Your task to perform on an android device: Add "lg ultragear" to the cart on target.com Image 0: 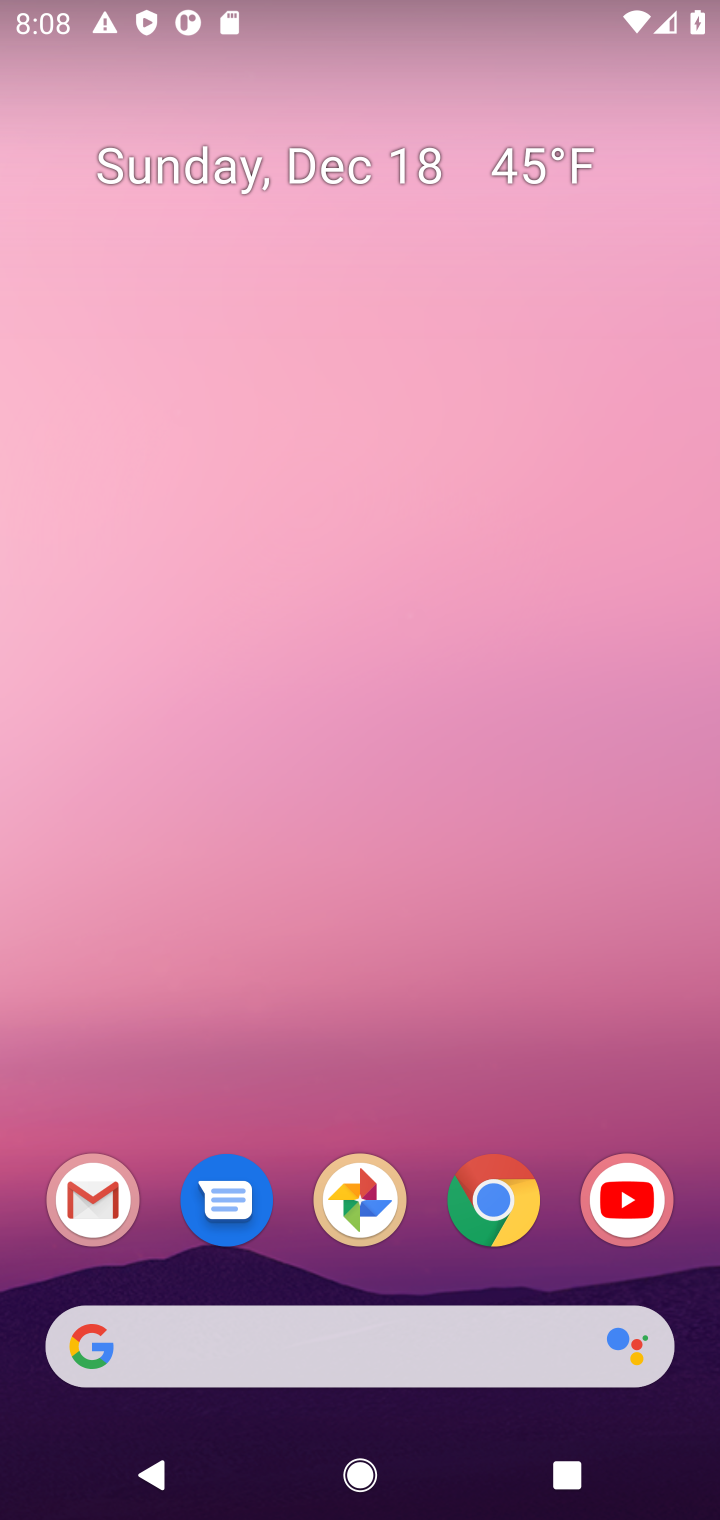
Step 0: click (495, 1190)
Your task to perform on an android device: Add "lg ultragear" to the cart on target.com Image 1: 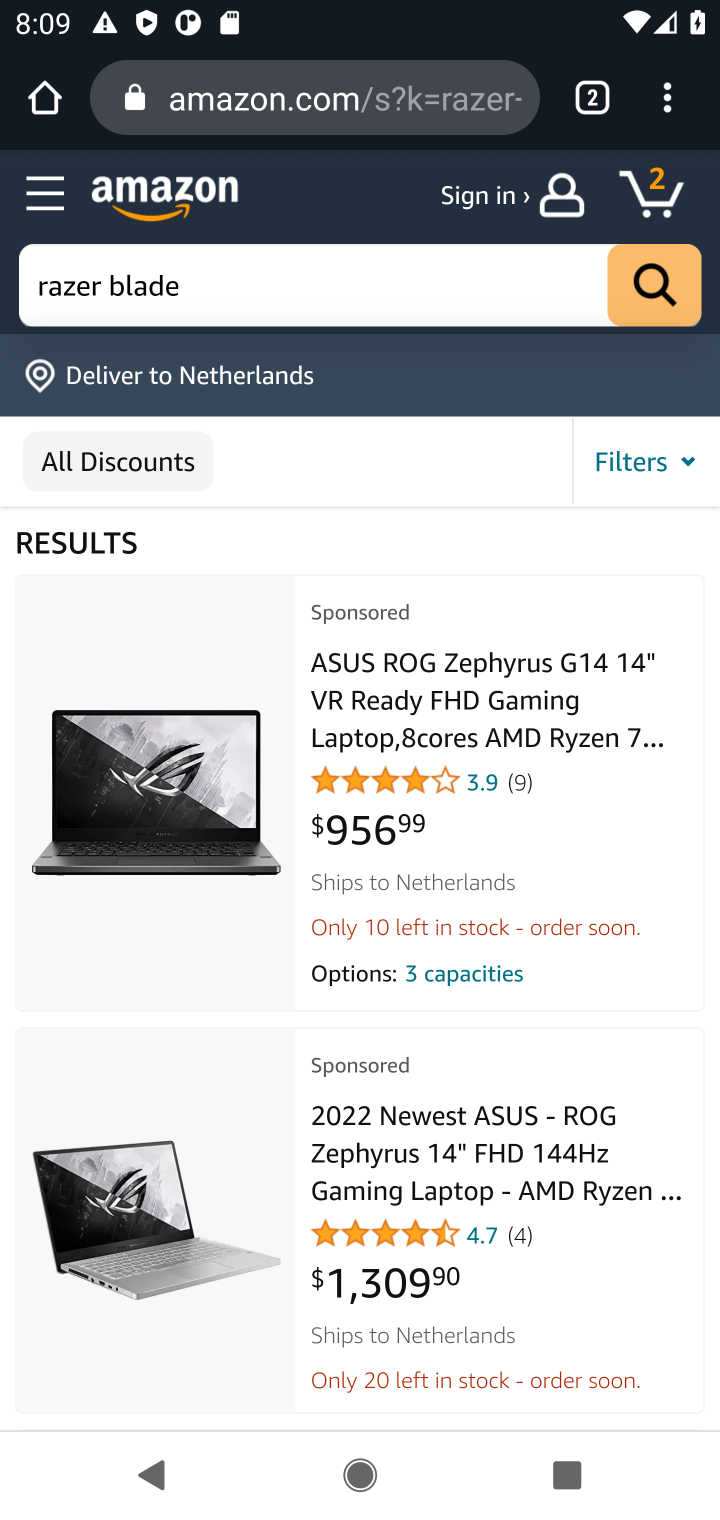
Step 1: click (227, 107)
Your task to perform on an android device: Add "lg ultragear" to the cart on target.com Image 2: 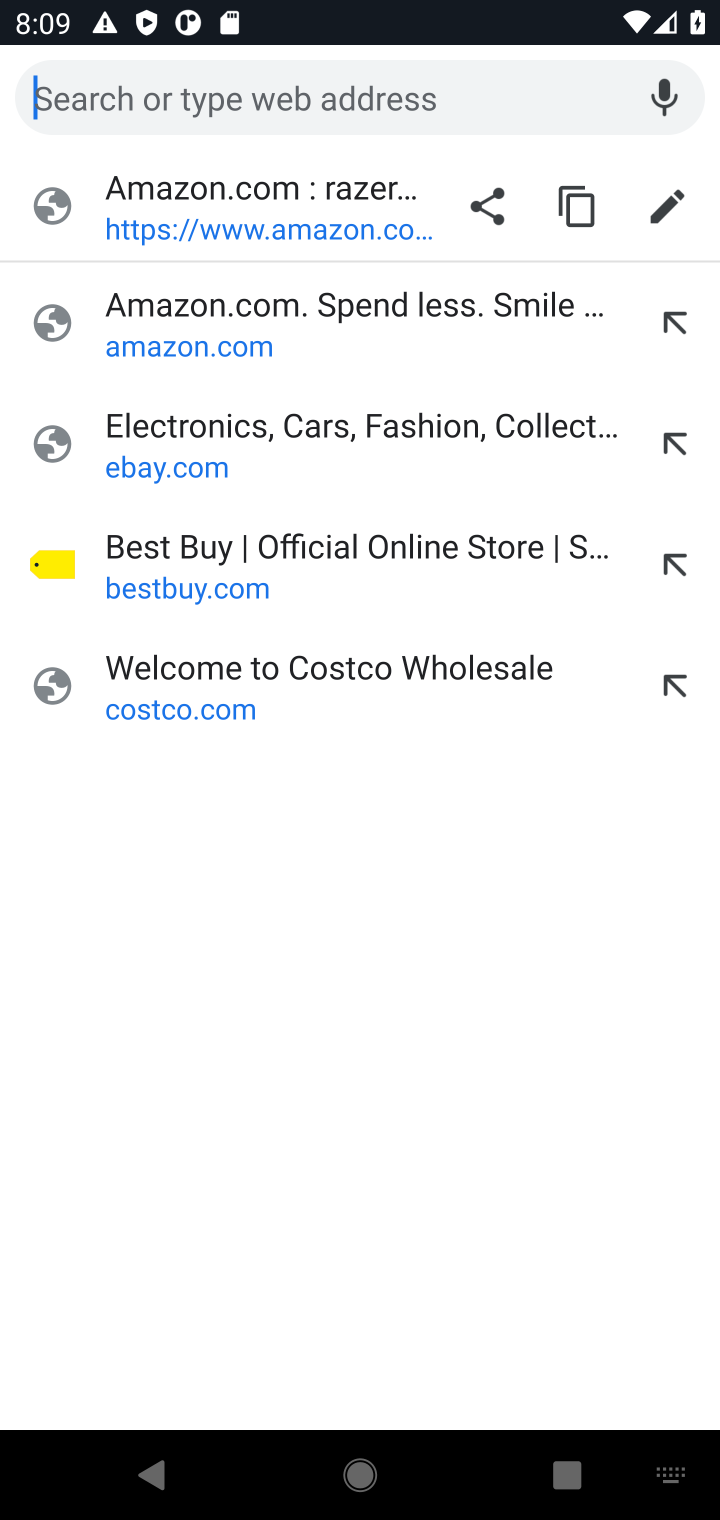
Step 2: type "target.com"
Your task to perform on an android device: Add "lg ultragear" to the cart on target.com Image 3: 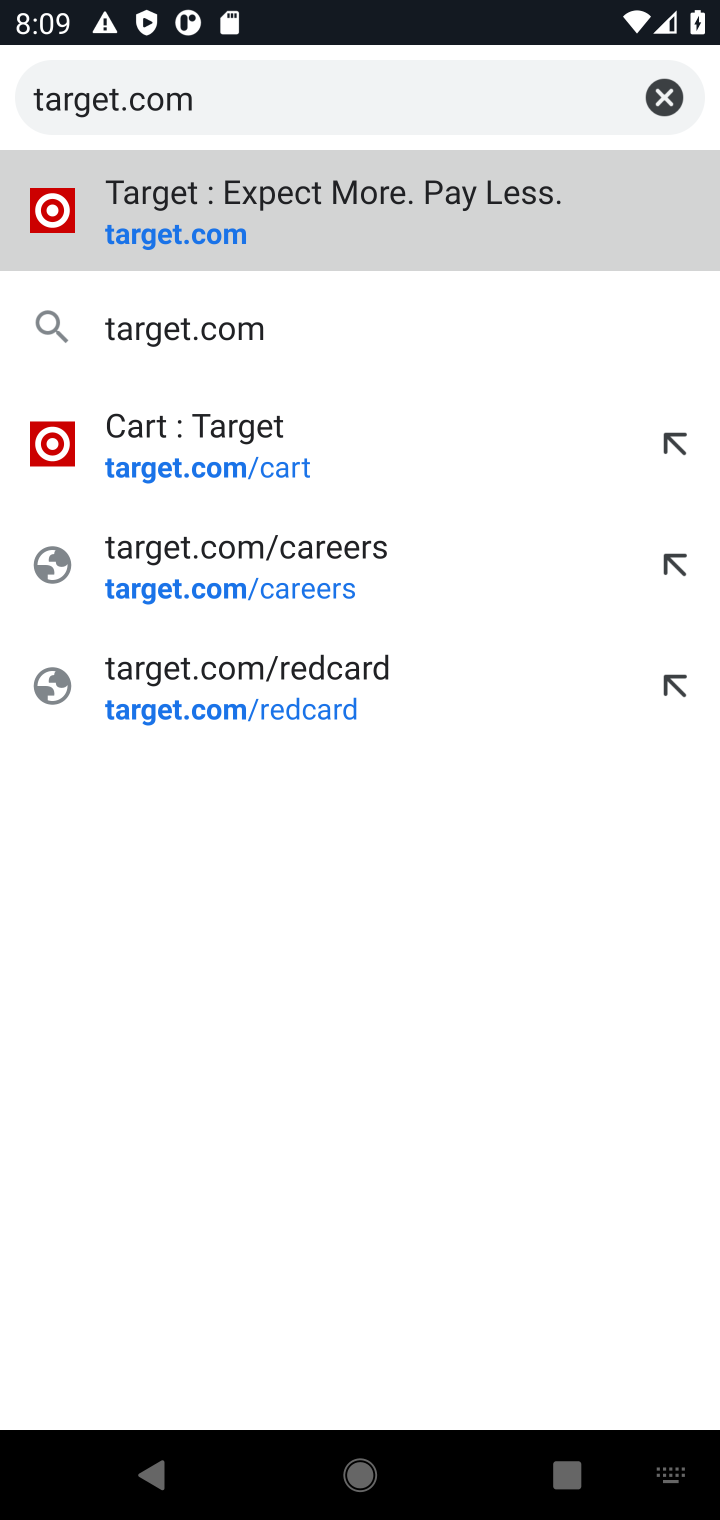
Step 3: click (138, 222)
Your task to perform on an android device: Add "lg ultragear" to the cart on target.com Image 4: 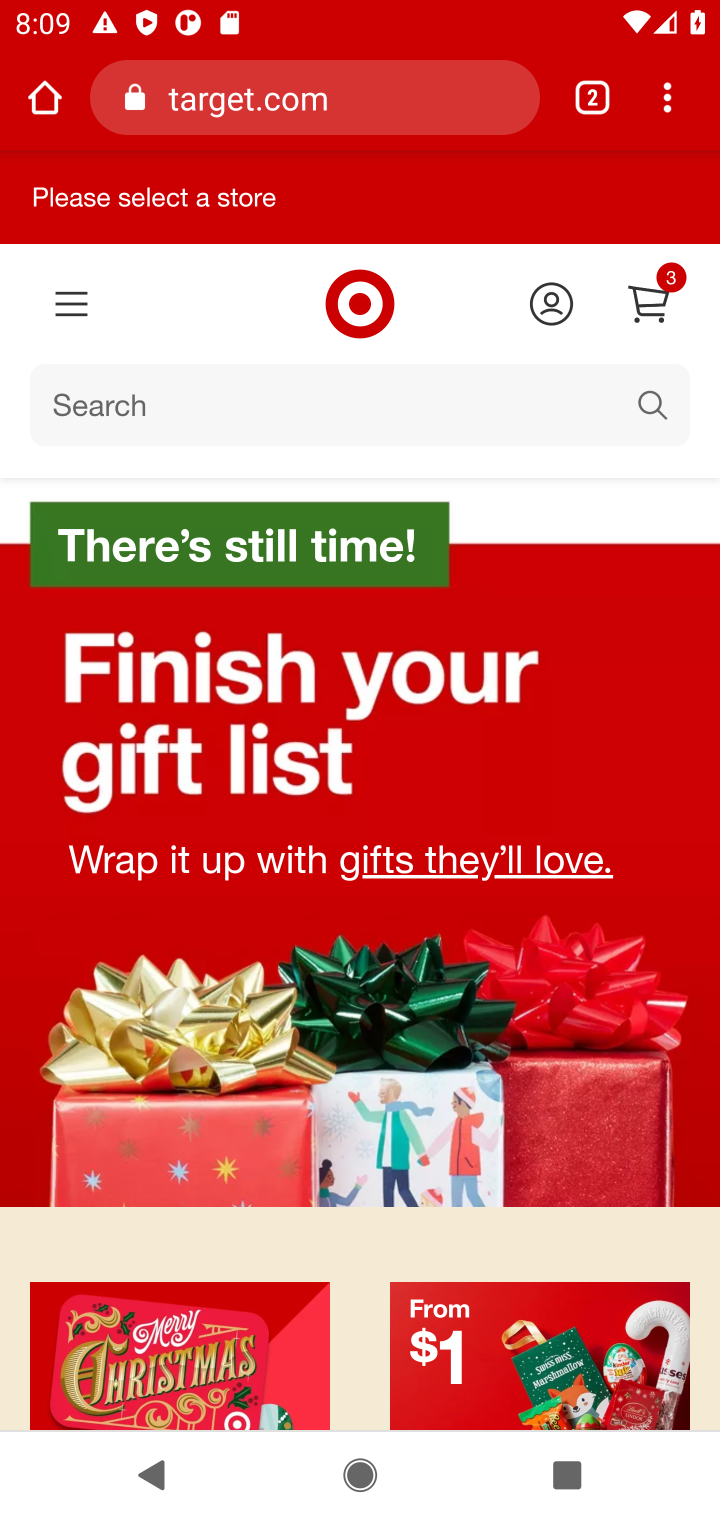
Step 4: click (97, 408)
Your task to perform on an android device: Add "lg ultragear" to the cart on target.com Image 5: 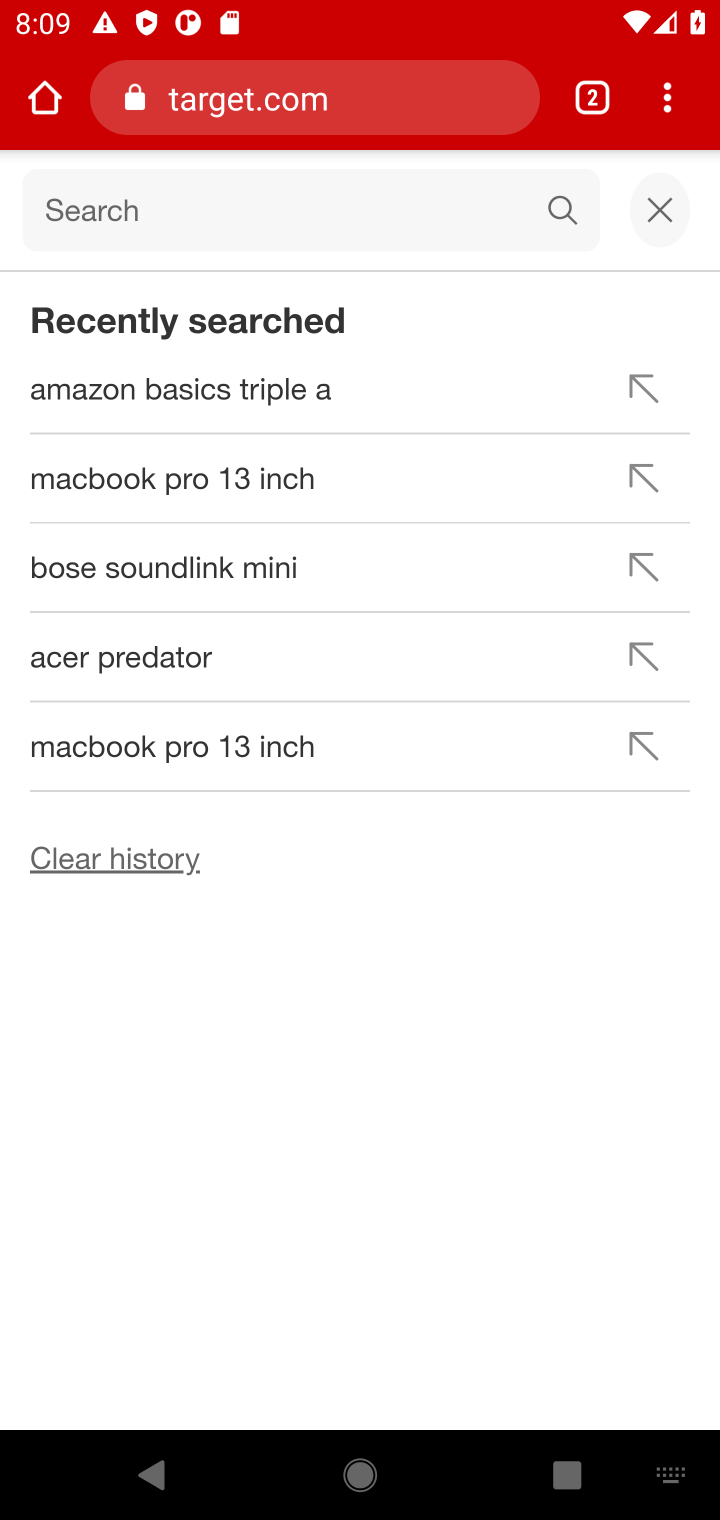
Step 5: type "lg ultragear"
Your task to perform on an android device: Add "lg ultragear" to the cart on target.com Image 6: 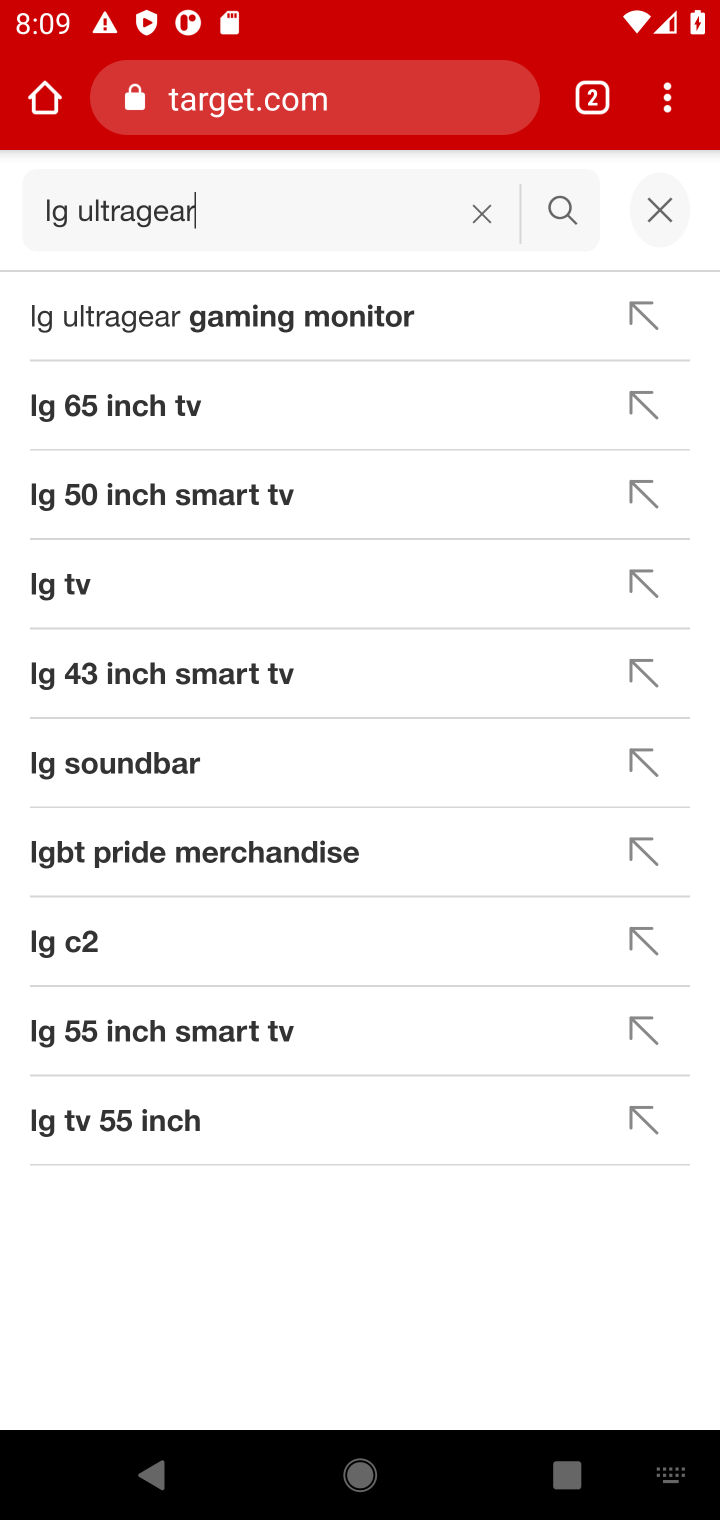
Step 6: click (554, 196)
Your task to perform on an android device: Add "lg ultragear" to the cart on target.com Image 7: 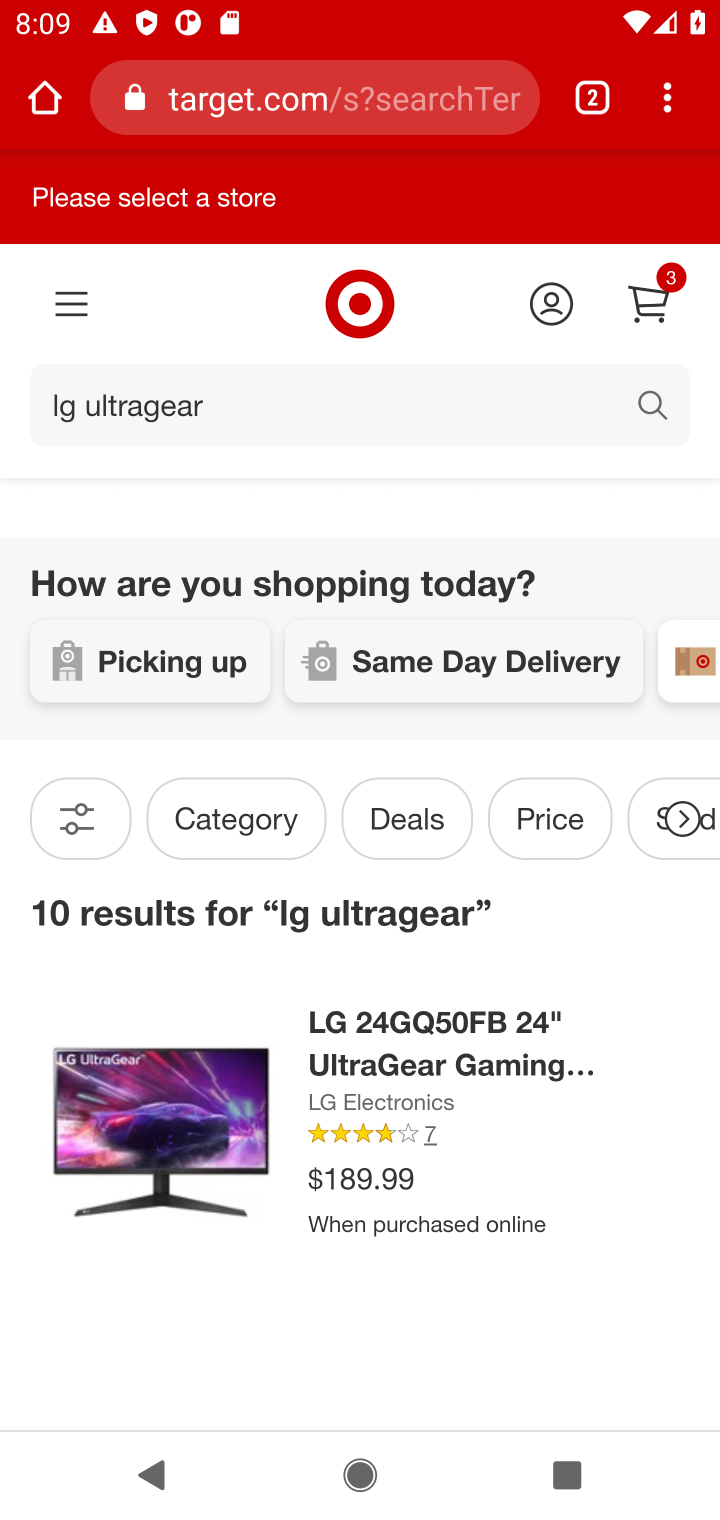
Step 7: drag from (287, 1081) to (284, 679)
Your task to perform on an android device: Add "lg ultragear" to the cart on target.com Image 8: 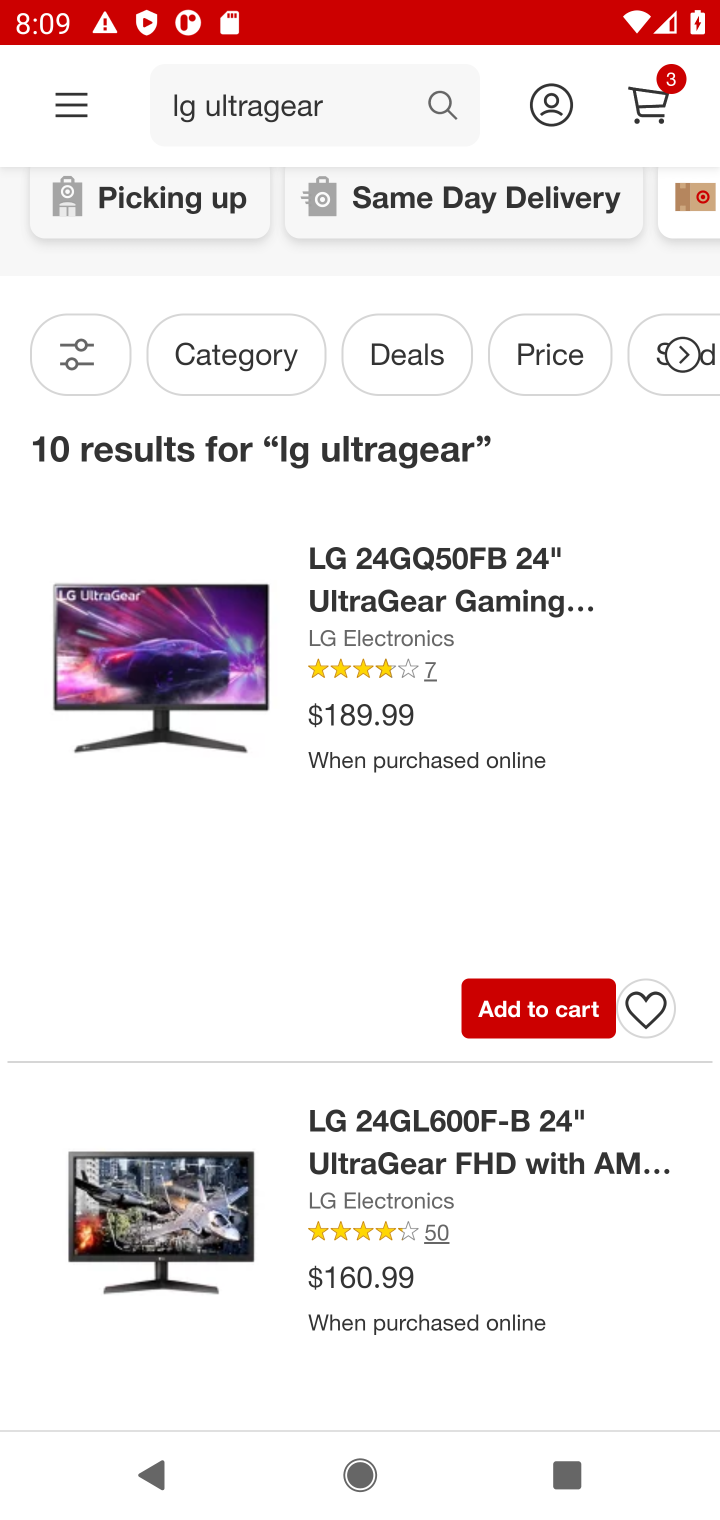
Step 8: click (535, 1003)
Your task to perform on an android device: Add "lg ultragear" to the cart on target.com Image 9: 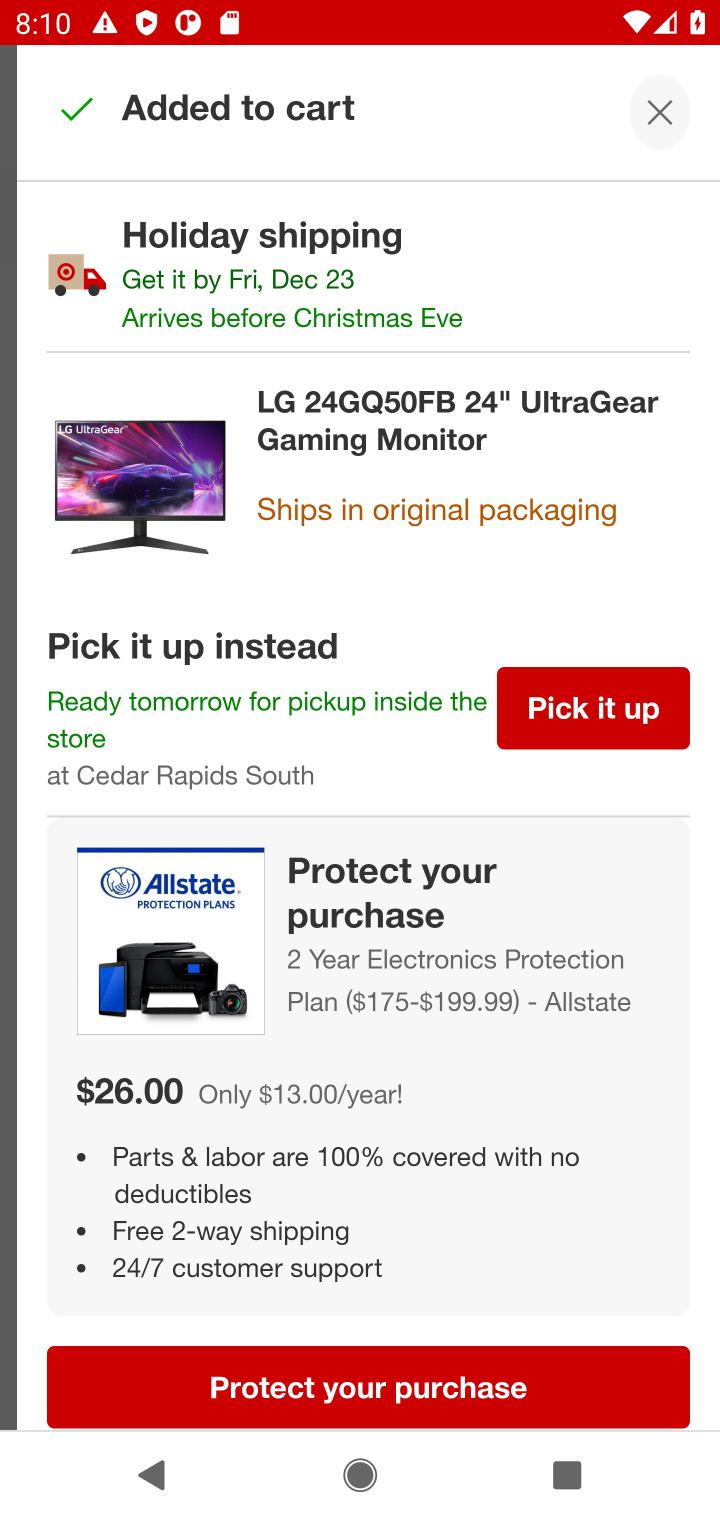
Step 9: task complete